Your task to perform on an android device: Go to internet settings Image 0: 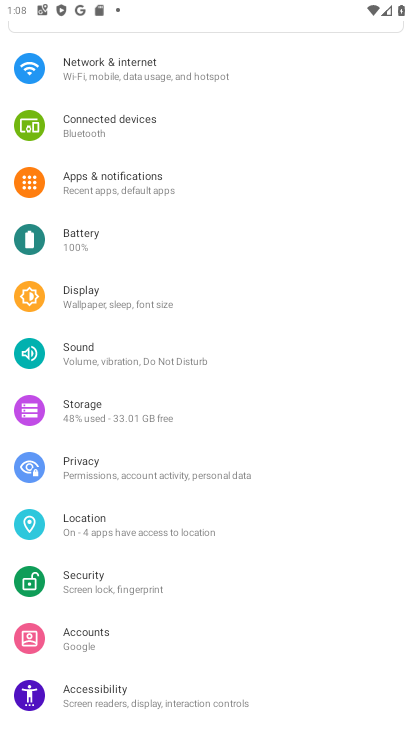
Step 0: drag from (230, 152) to (265, 532)
Your task to perform on an android device: Go to internet settings Image 1: 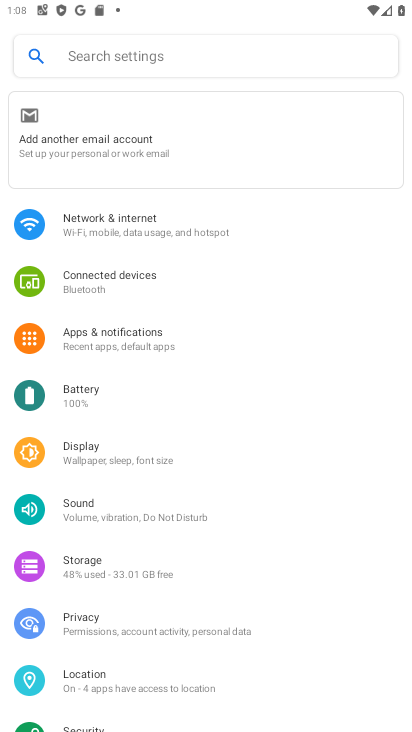
Step 1: click (172, 229)
Your task to perform on an android device: Go to internet settings Image 2: 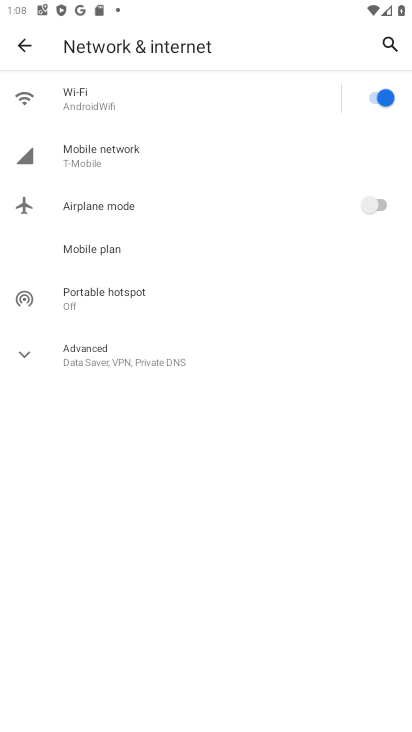
Step 2: click (151, 157)
Your task to perform on an android device: Go to internet settings Image 3: 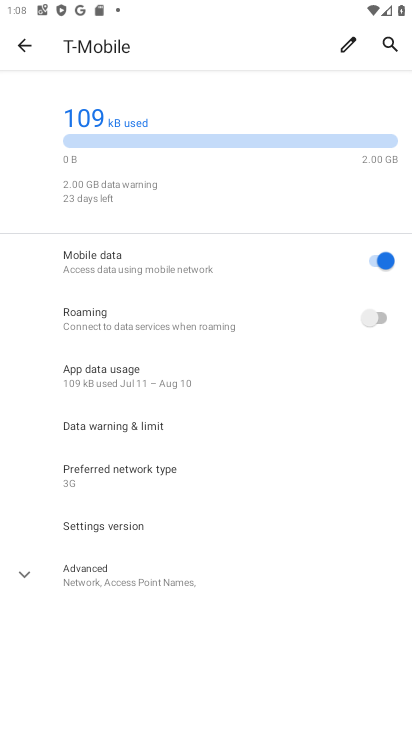
Step 3: task complete